Your task to perform on an android device: Go to Yahoo.com Image 0: 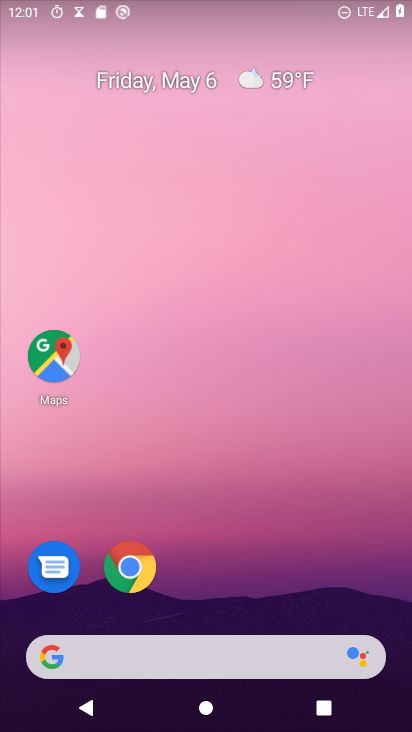
Step 0: click (123, 574)
Your task to perform on an android device: Go to Yahoo.com Image 1: 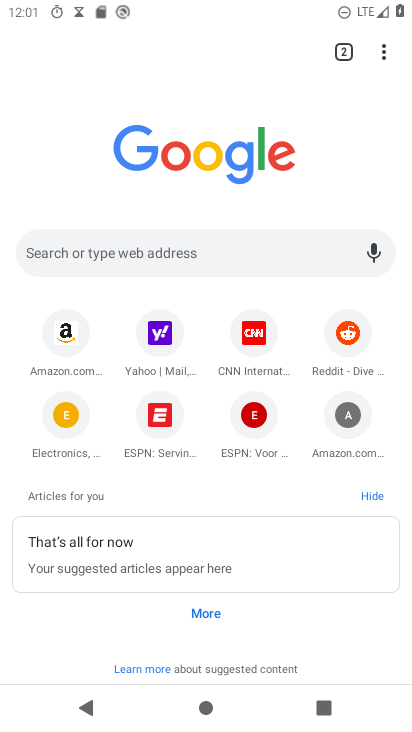
Step 1: click (155, 352)
Your task to perform on an android device: Go to Yahoo.com Image 2: 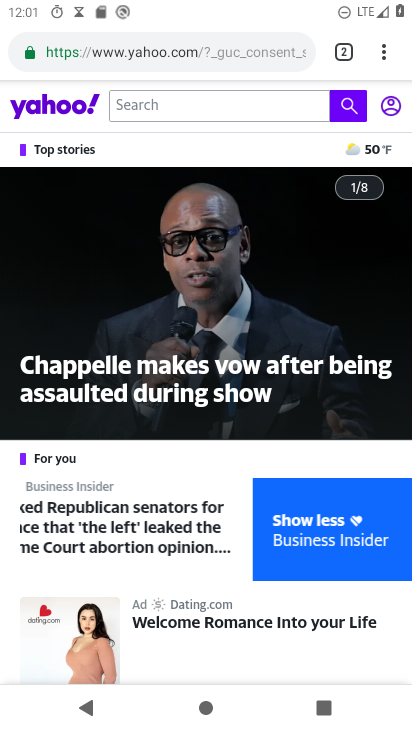
Step 2: task complete